Your task to perform on an android device: toggle notifications settings in the gmail app Image 0: 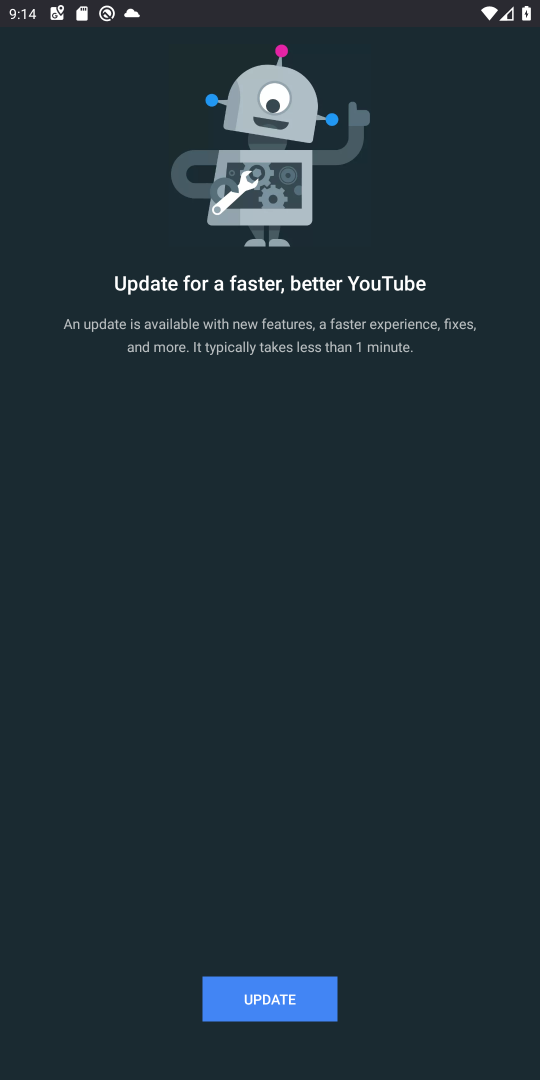
Step 0: press home button
Your task to perform on an android device: toggle notifications settings in the gmail app Image 1: 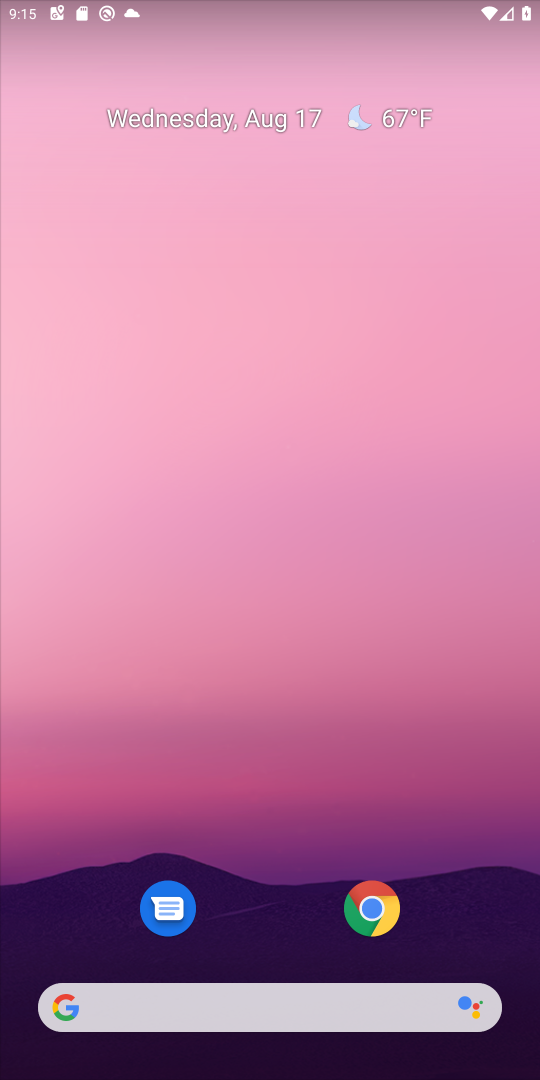
Step 1: drag from (261, 904) to (229, 147)
Your task to perform on an android device: toggle notifications settings in the gmail app Image 2: 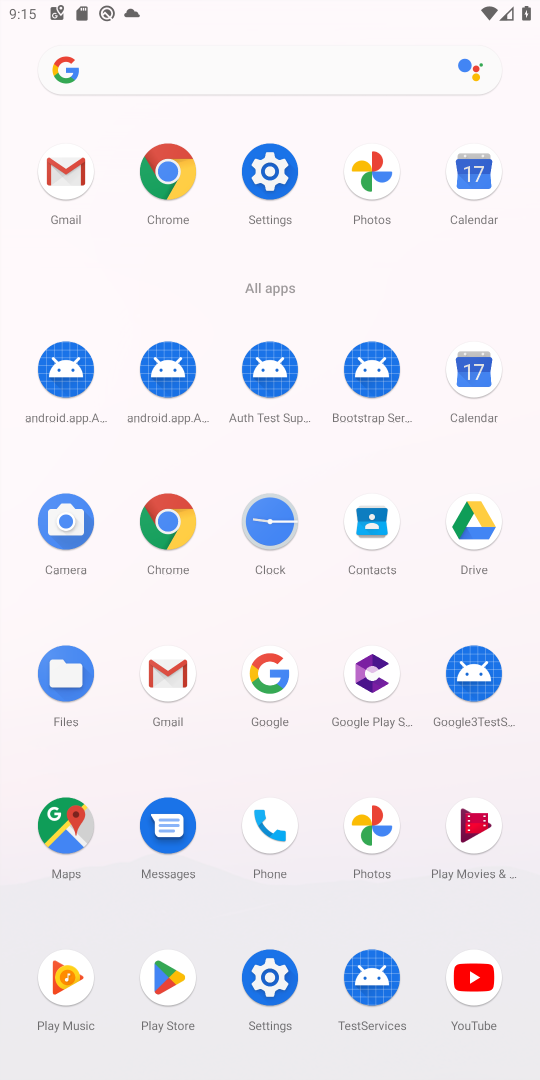
Step 2: click (161, 674)
Your task to perform on an android device: toggle notifications settings in the gmail app Image 3: 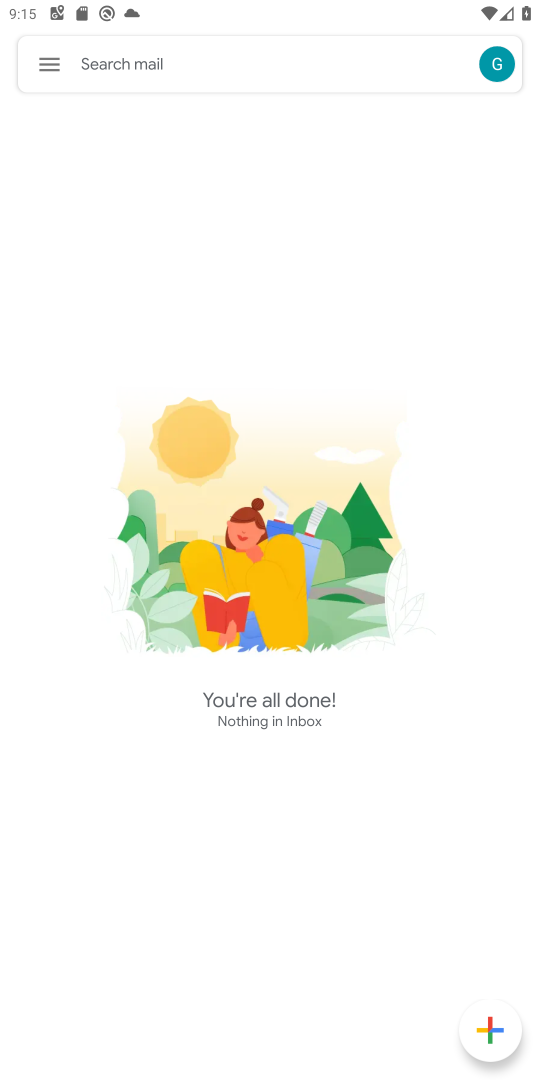
Step 3: press home button
Your task to perform on an android device: toggle notifications settings in the gmail app Image 4: 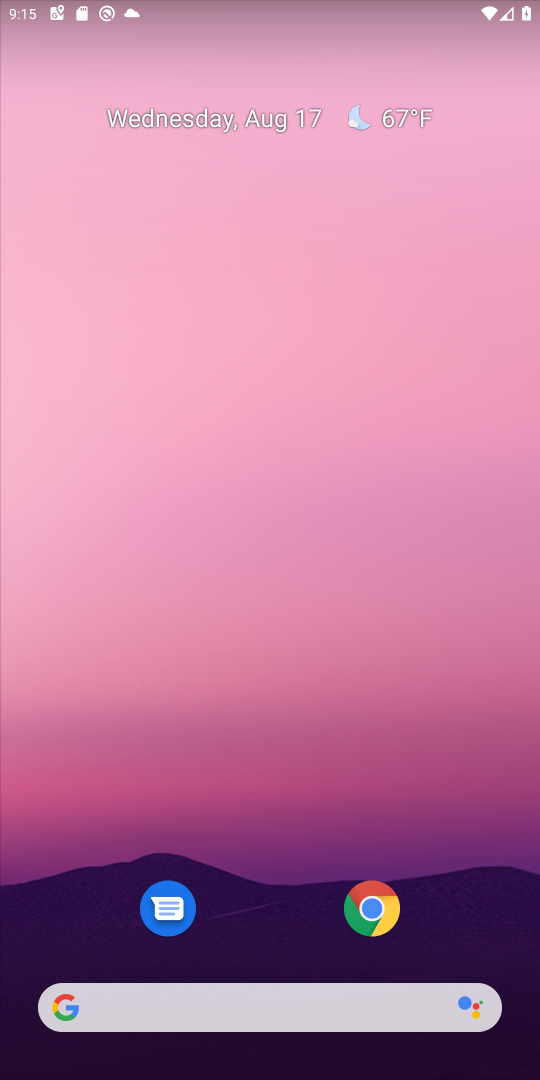
Step 4: drag from (270, 908) to (327, 171)
Your task to perform on an android device: toggle notifications settings in the gmail app Image 5: 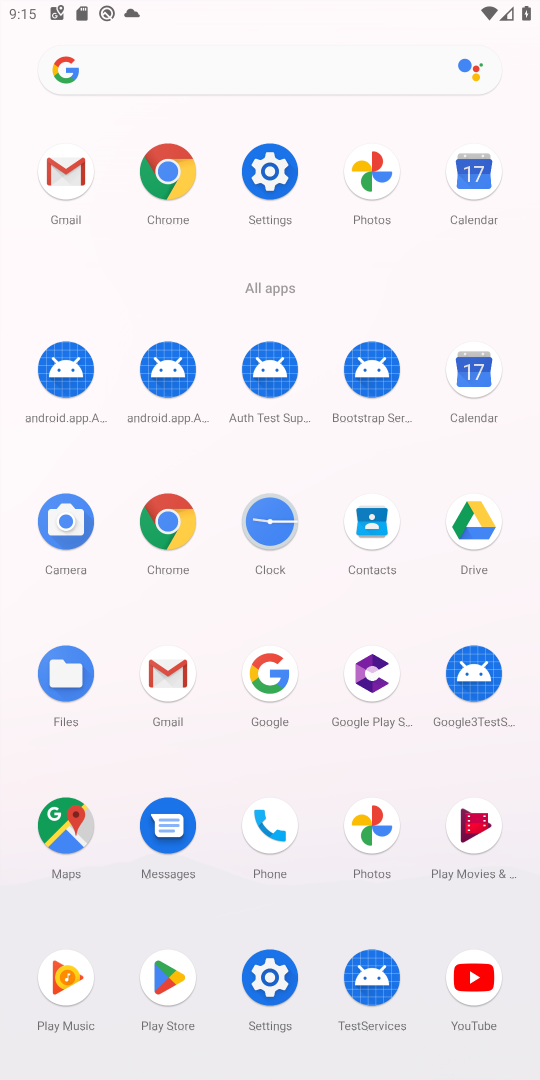
Step 5: click (159, 676)
Your task to perform on an android device: toggle notifications settings in the gmail app Image 6: 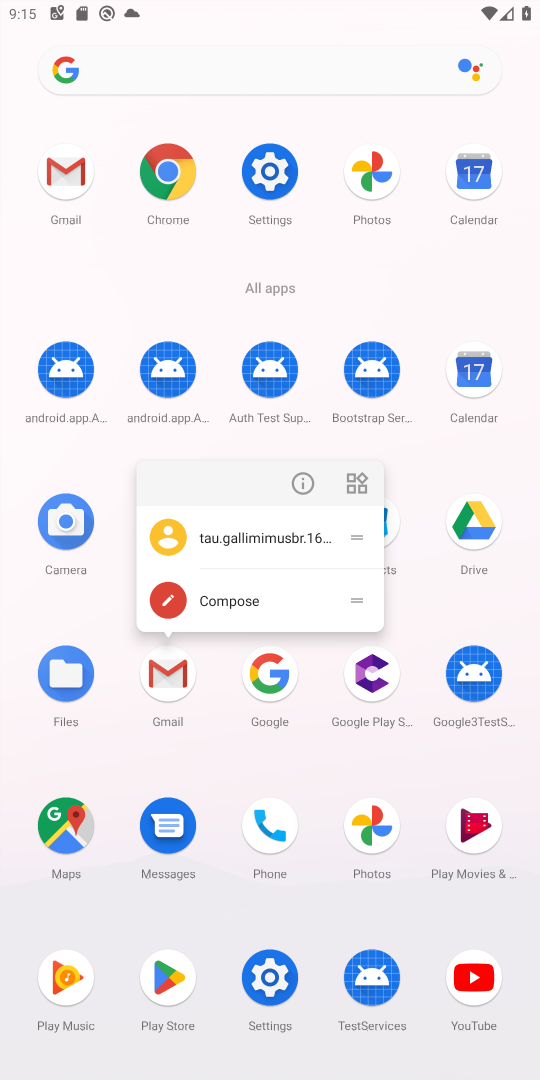
Step 6: click (304, 478)
Your task to perform on an android device: toggle notifications settings in the gmail app Image 7: 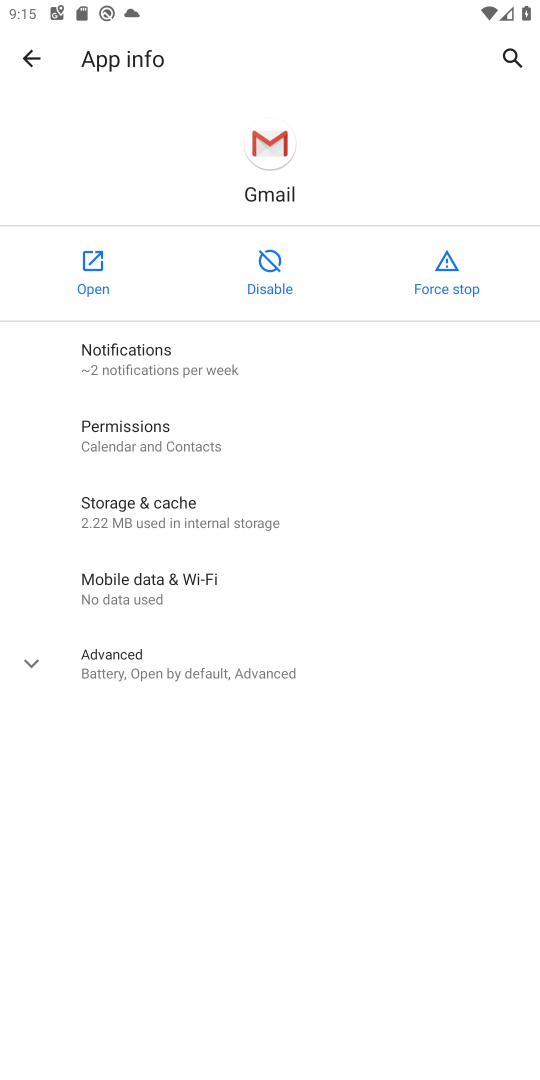
Step 7: click (204, 360)
Your task to perform on an android device: toggle notifications settings in the gmail app Image 8: 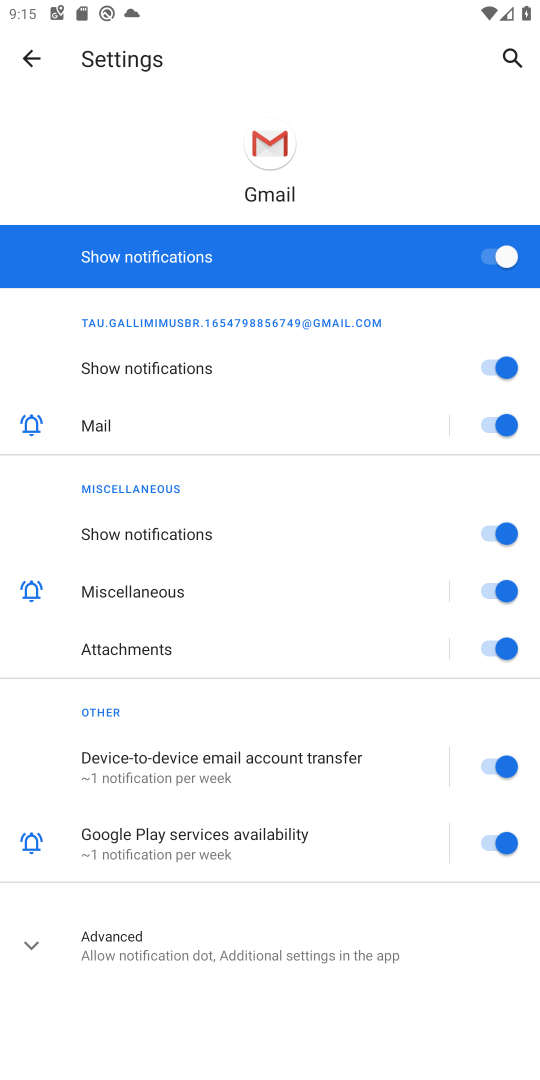
Step 8: click (500, 354)
Your task to perform on an android device: toggle notifications settings in the gmail app Image 9: 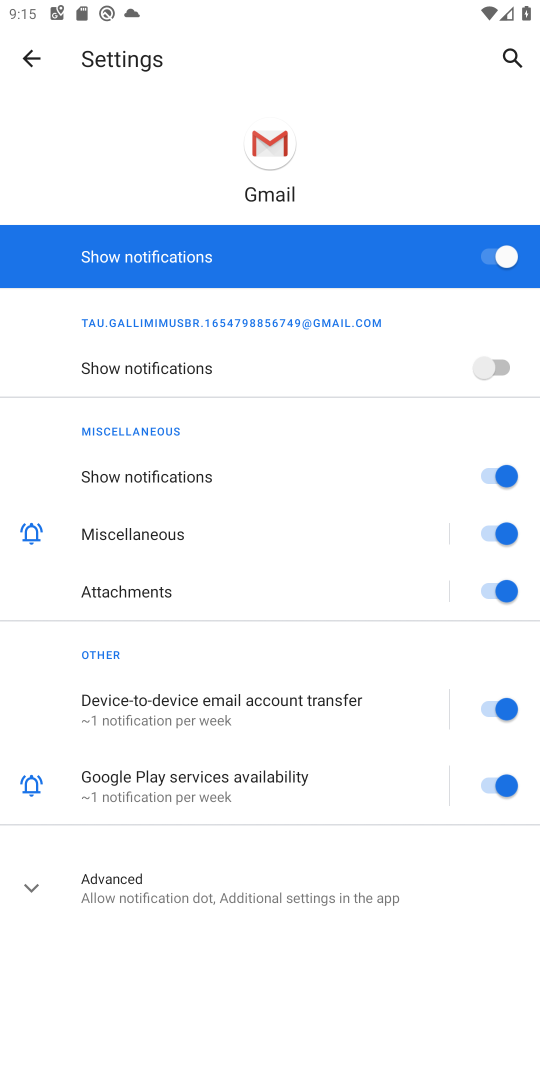
Step 9: task complete